Your task to perform on an android device: Open the web browser Image 0: 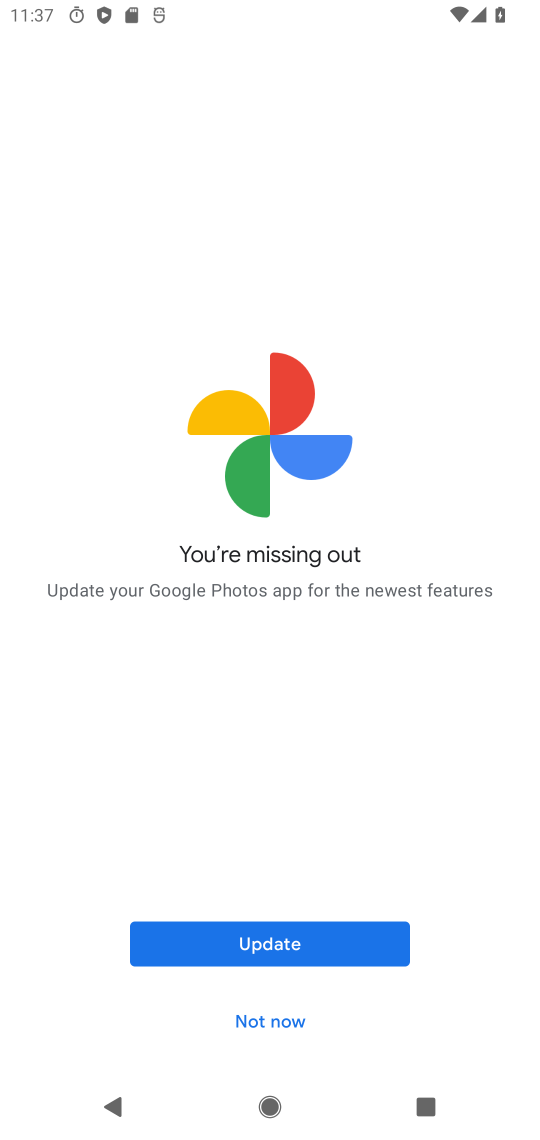
Step 0: press back button
Your task to perform on an android device: Open the web browser Image 1: 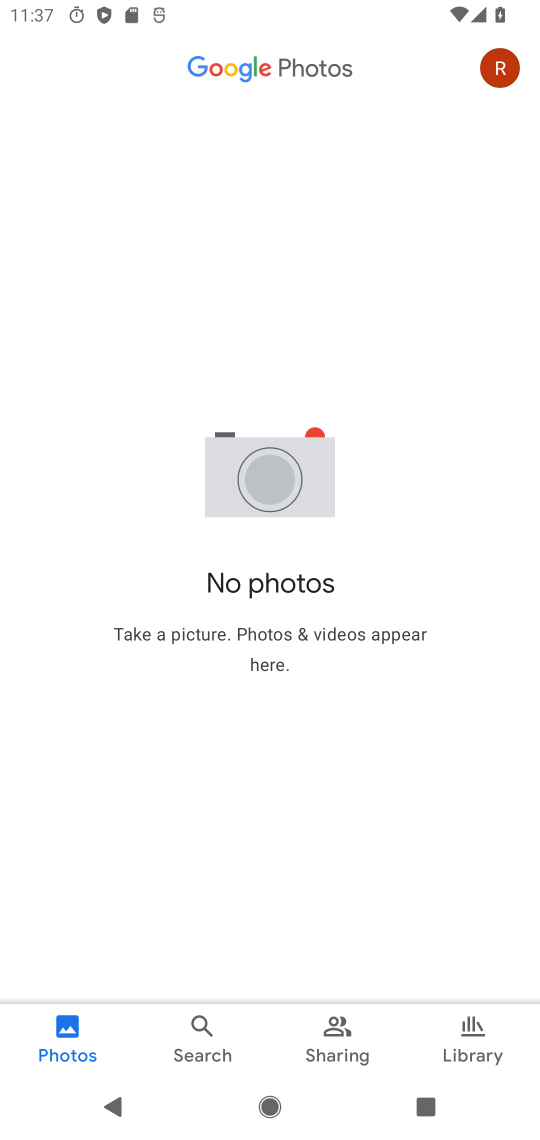
Step 1: press home button
Your task to perform on an android device: Open the web browser Image 2: 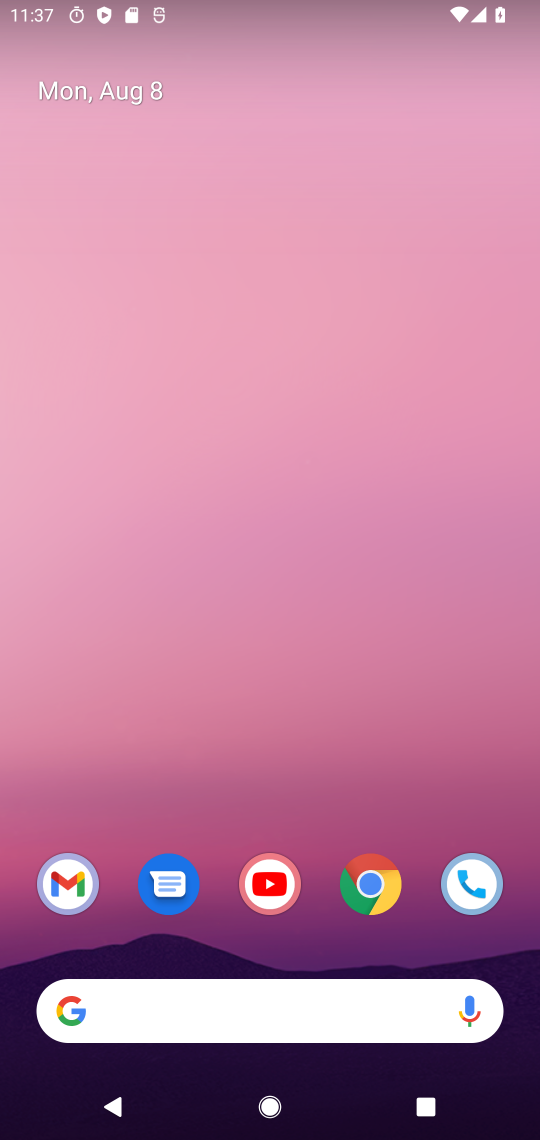
Step 2: click (370, 885)
Your task to perform on an android device: Open the web browser Image 3: 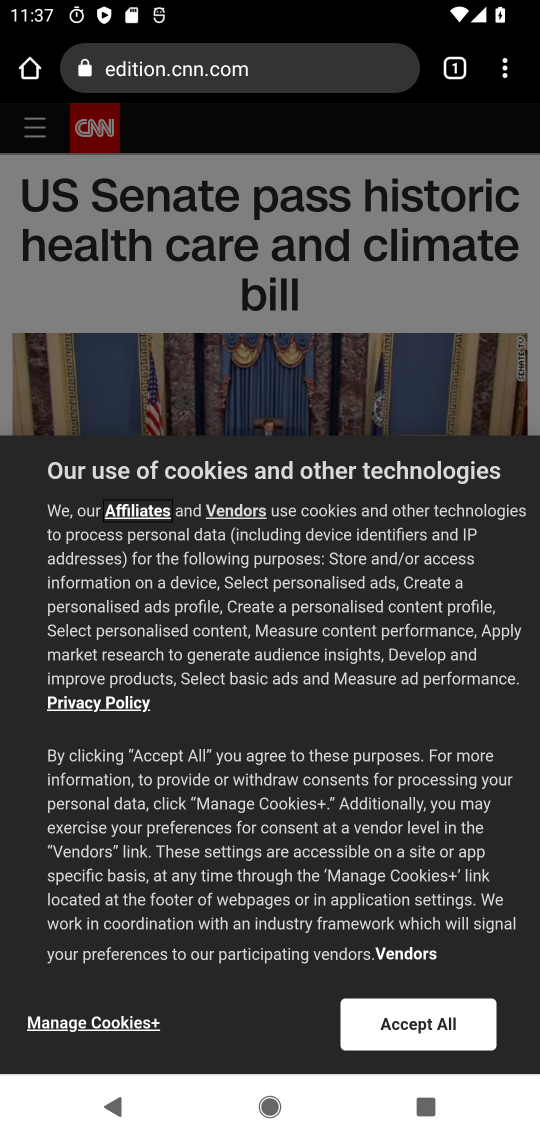
Step 3: task complete